Your task to perform on an android device: Go to CNN.com Image 0: 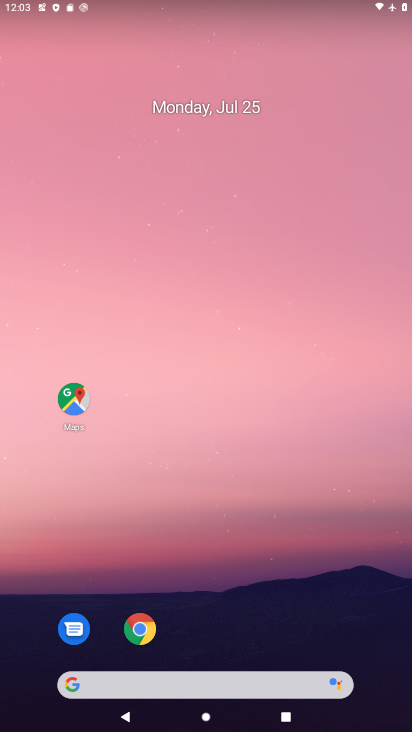
Step 0: click (234, 692)
Your task to perform on an android device: Go to CNN.com Image 1: 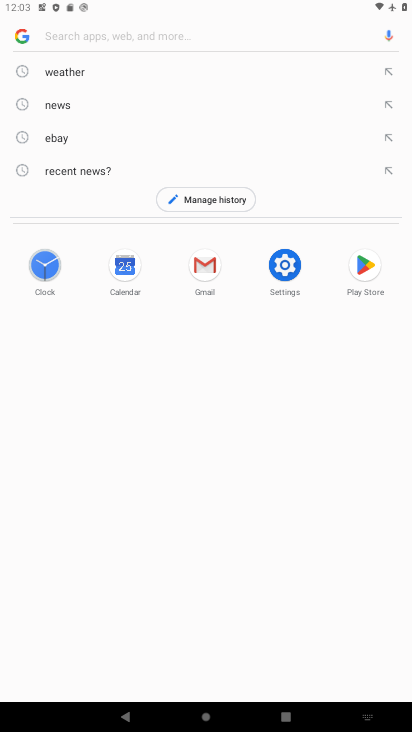
Step 1: type "cnn.com"
Your task to perform on an android device: Go to CNN.com Image 2: 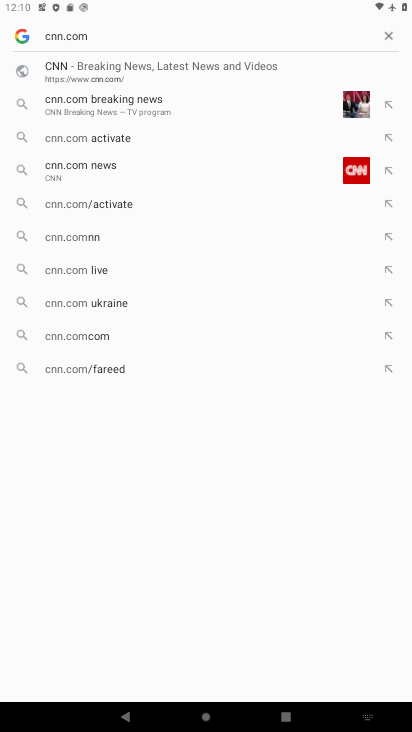
Step 2: task complete